Your task to perform on an android device: change keyboard looks Image 0: 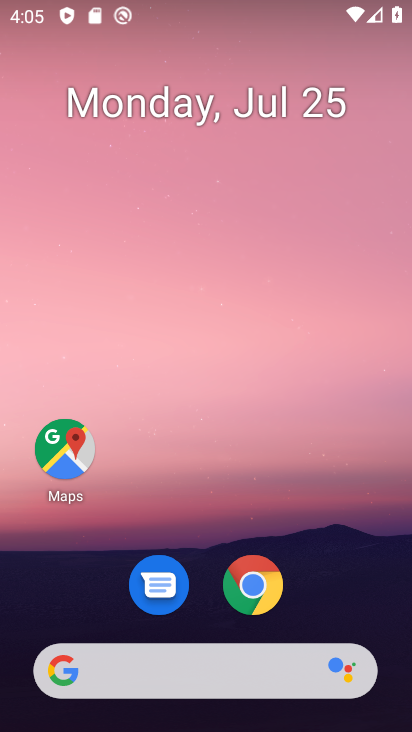
Step 0: drag from (322, 527) to (288, 24)
Your task to perform on an android device: change keyboard looks Image 1: 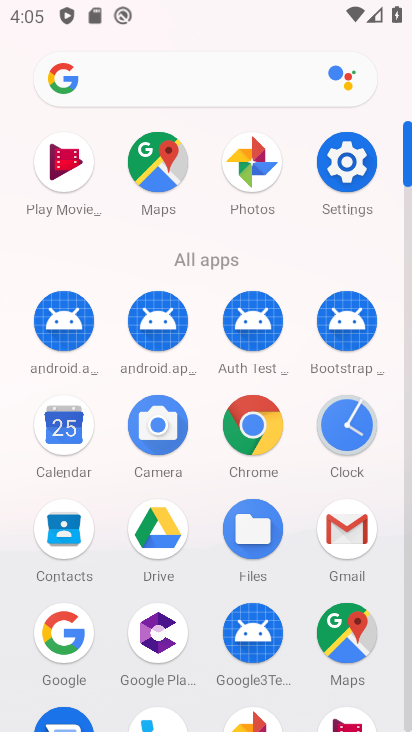
Step 1: click (349, 161)
Your task to perform on an android device: change keyboard looks Image 2: 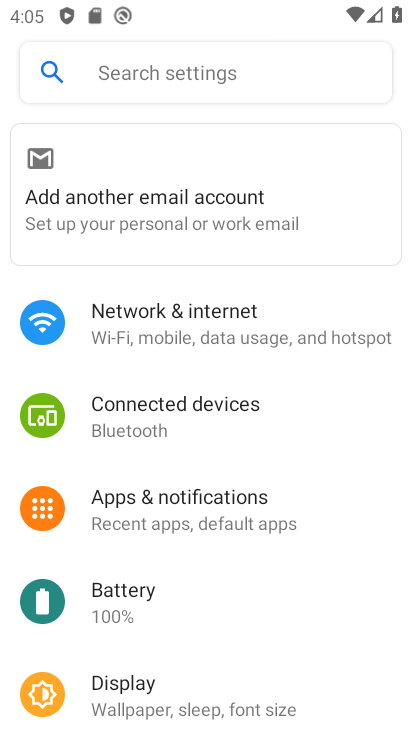
Step 2: drag from (239, 636) to (324, 42)
Your task to perform on an android device: change keyboard looks Image 3: 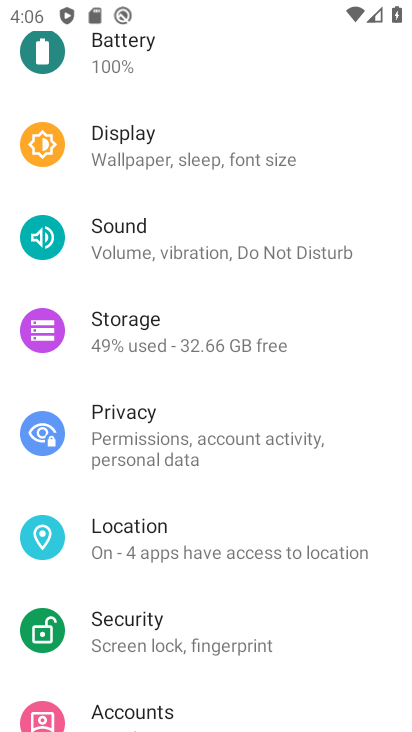
Step 3: drag from (238, 607) to (249, 107)
Your task to perform on an android device: change keyboard looks Image 4: 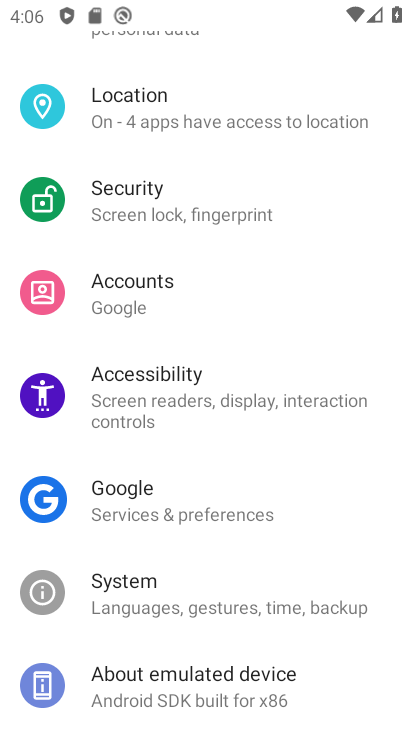
Step 4: click (228, 595)
Your task to perform on an android device: change keyboard looks Image 5: 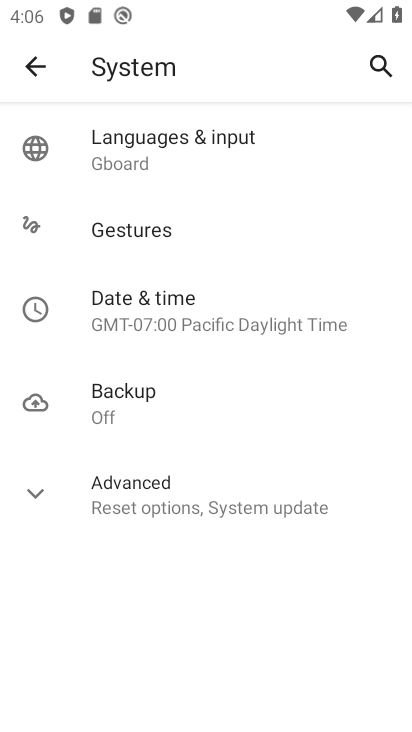
Step 5: click (196, 148)
Your task to perform on an android device: change keyboard looks Image 6: 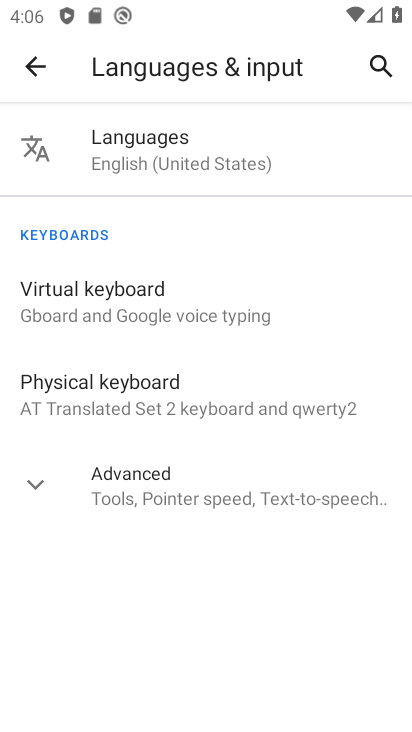
Step 6: click (151, 298)
Your task to perform on an android device: change keyboard looks Image 7: 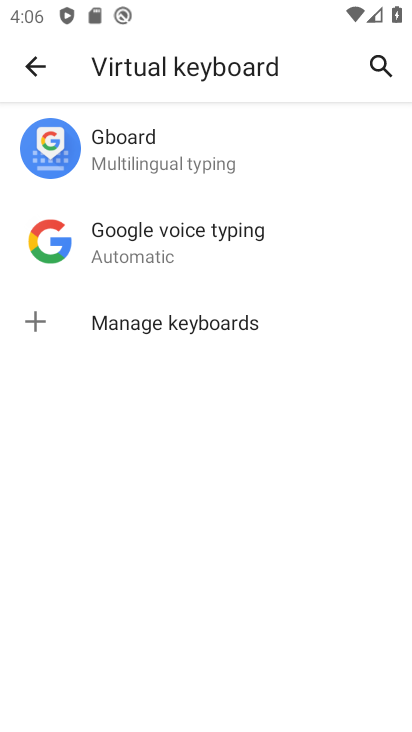
Step 7: click (167, 158)
Your task to perform on an android device: change keyboard looks Image 8: 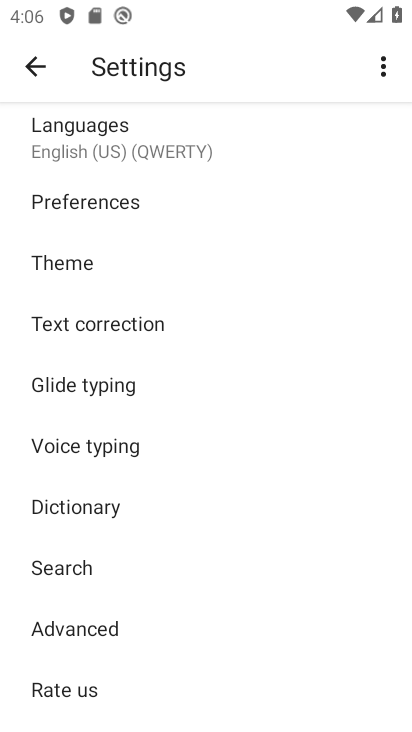
Step 8: click (66, 268)
Your task to perform on an android device: change keyboard looks Image 9: 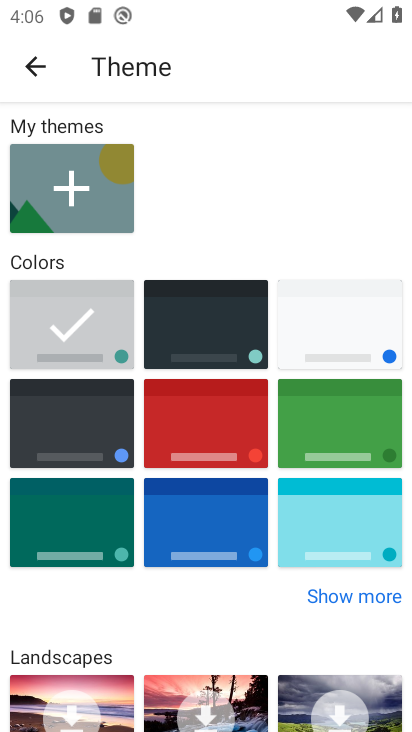
Step 9: click (210, 416)
Your task to perform on an android device: change keyboard looks Image 10: 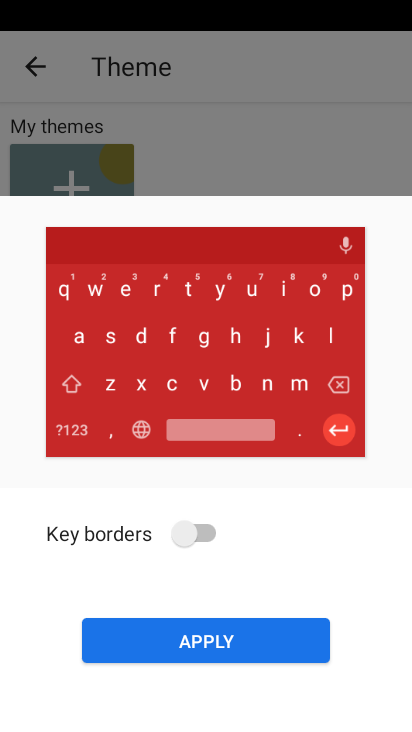
Step 10: click (209, 529)
Your task to perform on an android device: change keyboard looks Image 11: 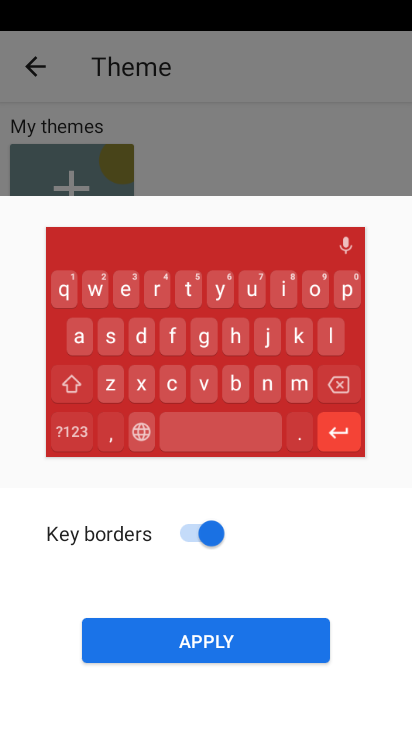
Step 11: click (214, 637)
Your task to perform on an android device: change keyboard looks Image 12: 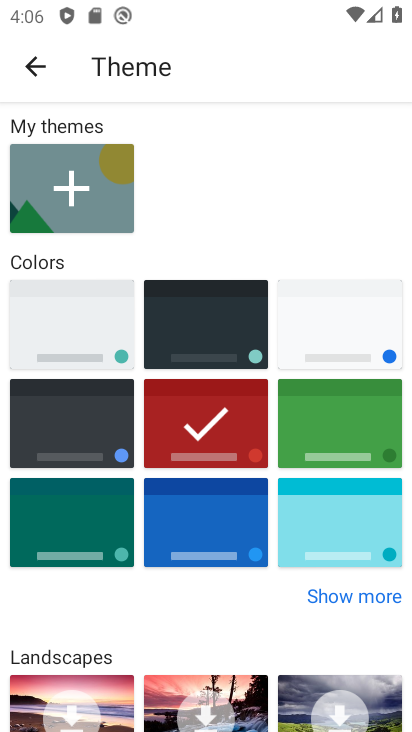
Step 12: task complete